Your task to perform on an android device: turn off translation in the chrome app Image 0: 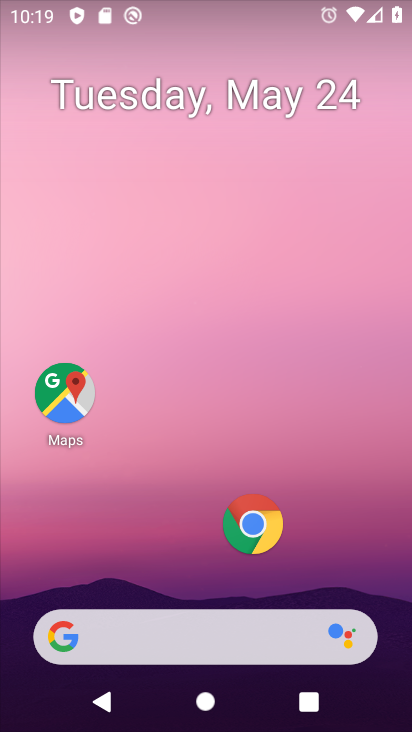
Step 0: click (261, 517)
Your task to perform on an android device: turn off translation in the chrome app Image 1: 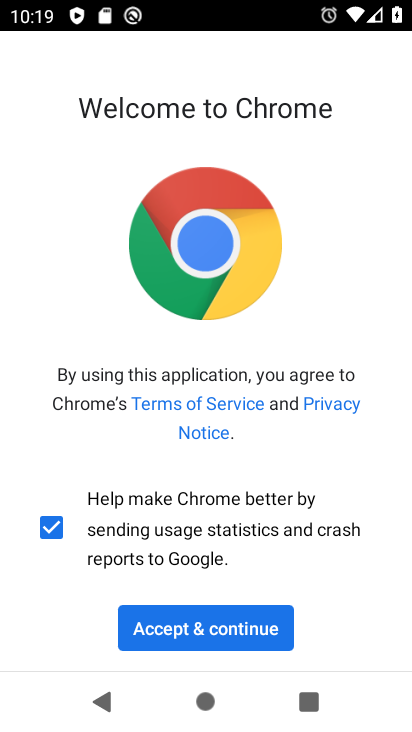
Step 1: click (254, 630)
Your task to perform on an android device: turn off translation in the chrome app Image 2: 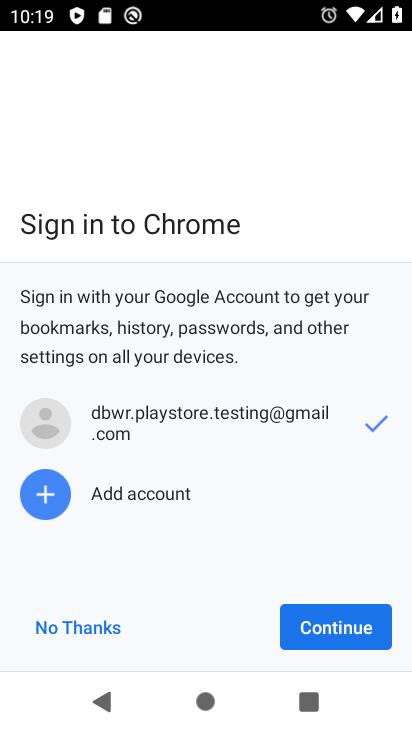
Step 2: click (354, 627)
Your task to perform on an android device: turn off translation in the chrome app Image 3: 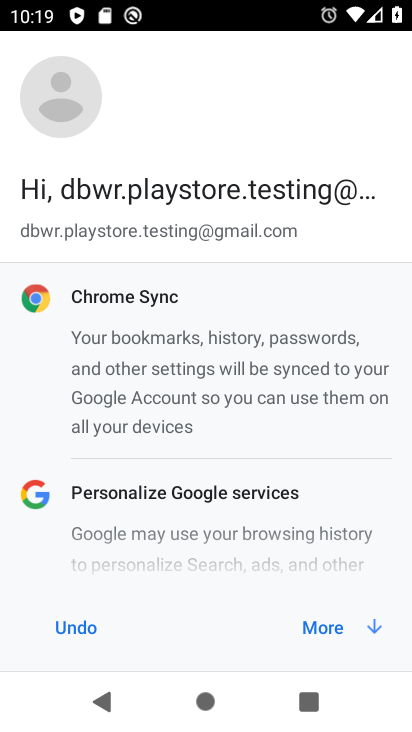
Step 3: click (321, 623)
Your task to perform on an android device: turn off translation in the chrome app Image 4: 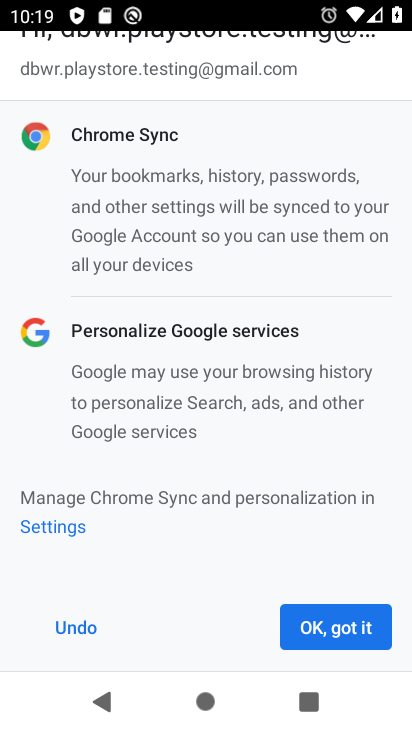
Step 4: click (321, 623)
Your task to perform on an android device: turn off translation in the chrome app Image 5: 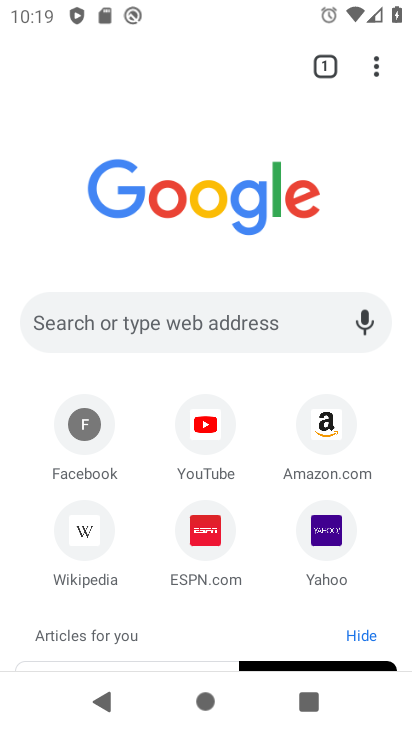
Step 5: click (370, 67)
Your task to perform on an android device: turn off translation in the chrome app Image 6: 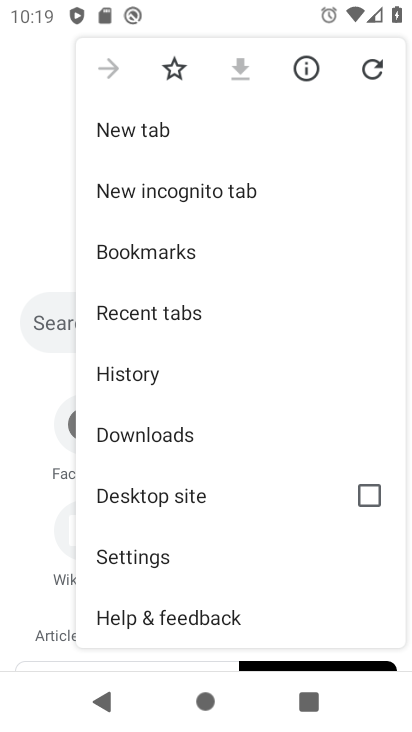
Step 6: click (168, 555)
Your task to perform on an android device: turn off translation in the chrome app Image 7: 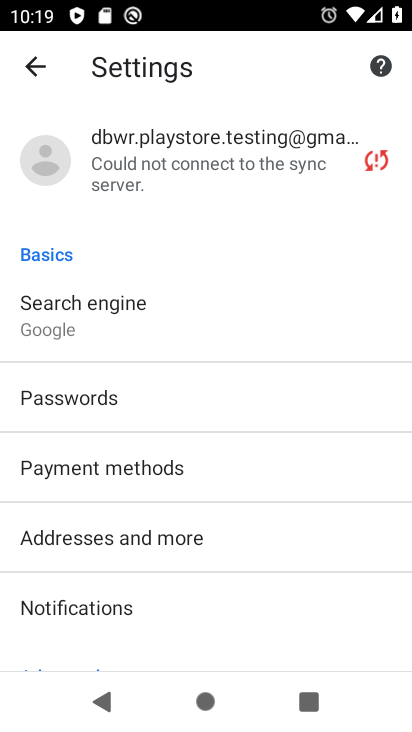
Step 7: drag from (168, 555) to (200, 246)
Your task to perform on an android device: turn off translation in the chrome app Image 8: 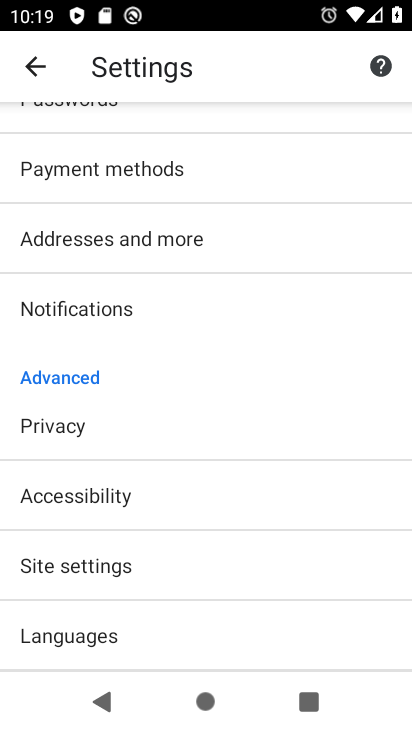
Step 8: click (185, 624)
Your task to perform on an android device: turn off translation in the chrome app Image 9: 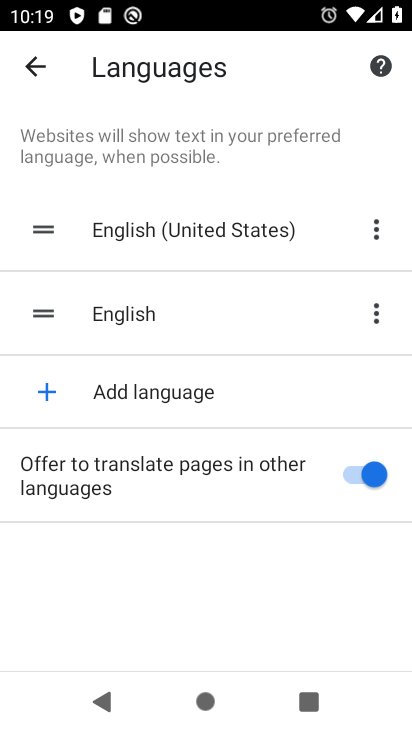
Step 9: click (353, 473)
Your task to perform on an android device: turn off translation in the chrome app Image 10: 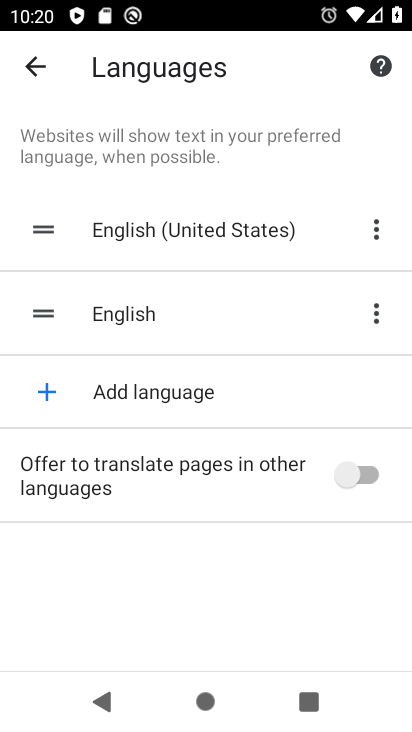
Step 10: task complete